Your task to perform on an android device: Do I have any events this weekend? Image 0: 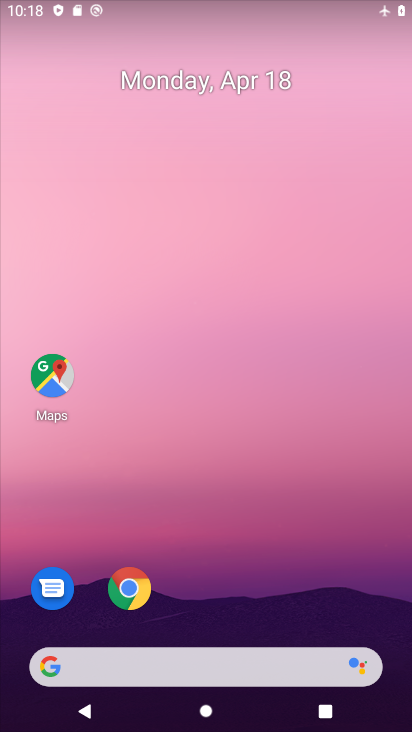
Step 0: drag from (207, 584) to (276, 123)
Your task to perform on an android device: Do I have any events this weekend? Image 1: 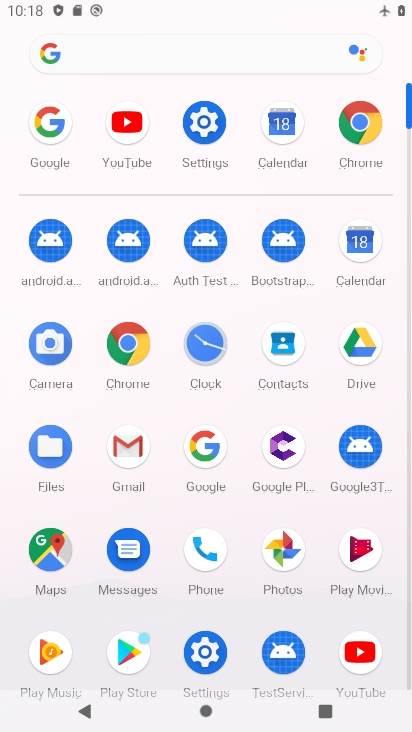
Step 1: click (361, 237)
Your task to perform on an android device: Do I have any events this weekend? Image 2: 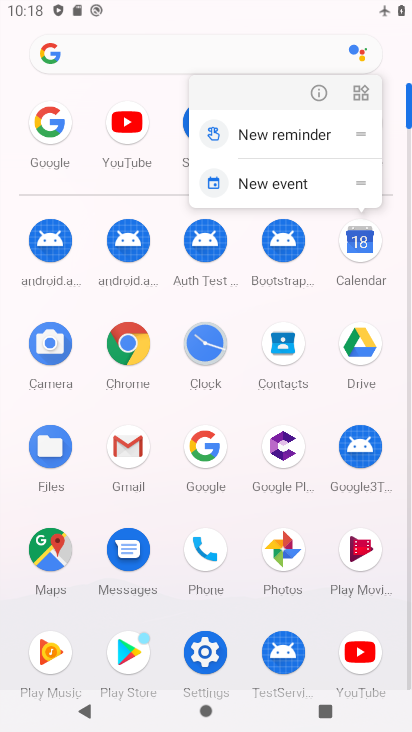
Step 2: click (362, 252)
Your task to perform on an android device: Do I have any events this weekend? Image 3: 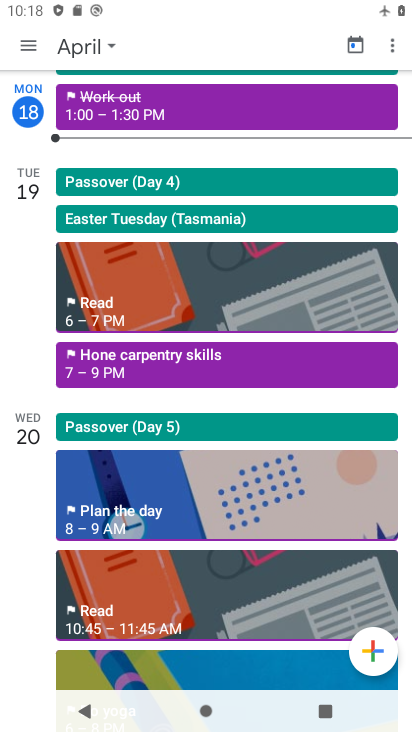
Step 3: click (89, 47)
Your task to perform on an android device: Do I have any events this weekend? Image 4: 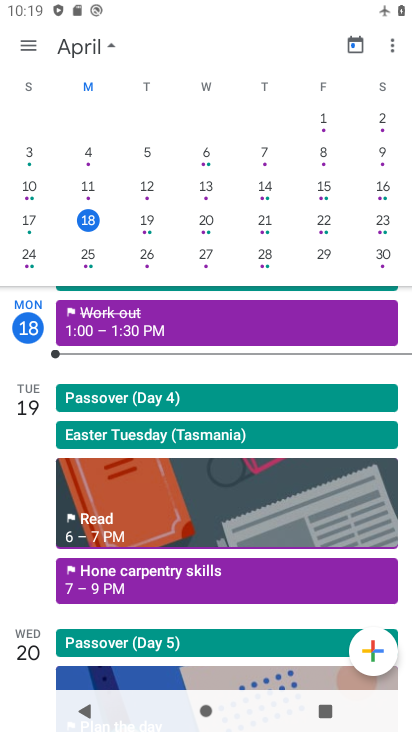
Step 4: click (376, 217)
Your task to perform on an android device: Do I have any events this weekend? Image 5: 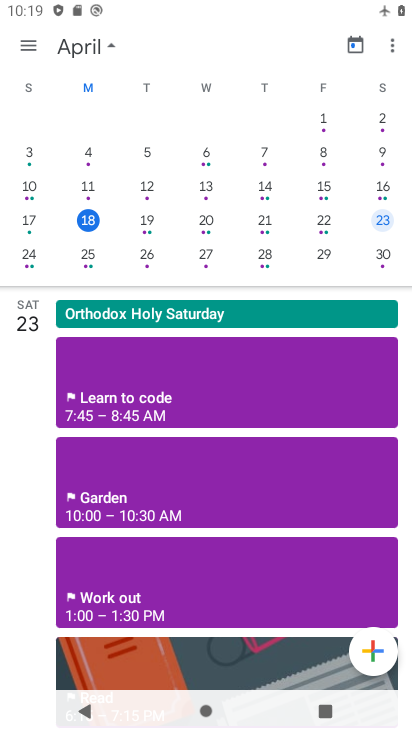
Step 5: click (25, 262)
Your task to perform on an android device: Do I have any events this weekend? Image 6: 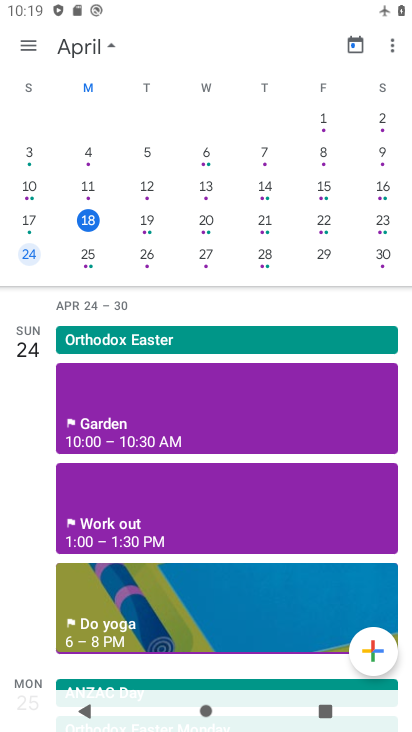
Step 6: task complete